Your task to perform on an android device: Show me popular games on the Play Store Image 0: 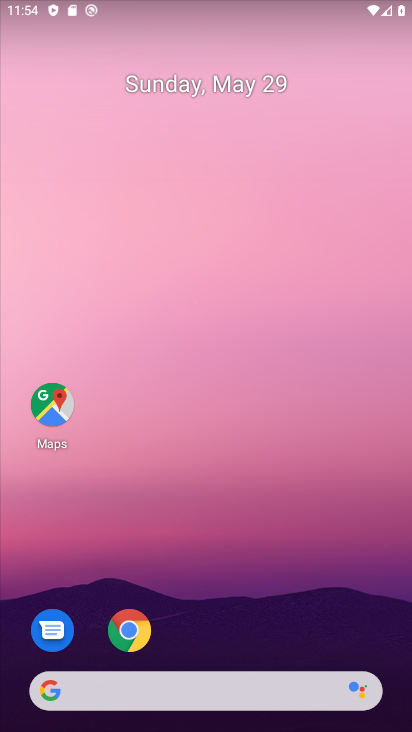
Step 0: drag from (112, 506) to (113, 36)
Your task to perform on an android device: Show me popular games on the Play Store Image 1: 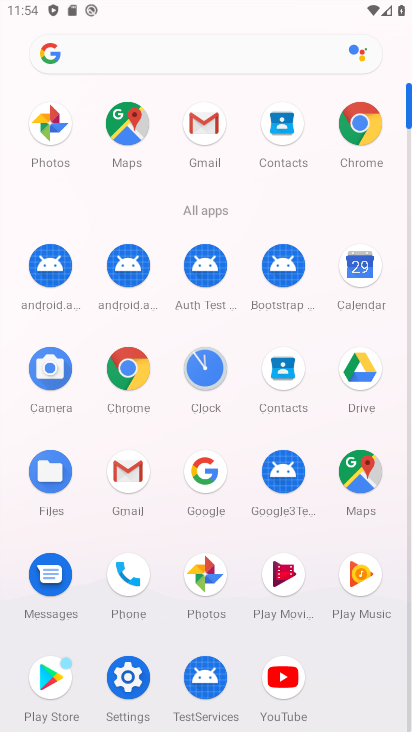
Step 1: click (54, 688)
Your task to perform on an android device: Show me popular games on the Play Store Image 2: 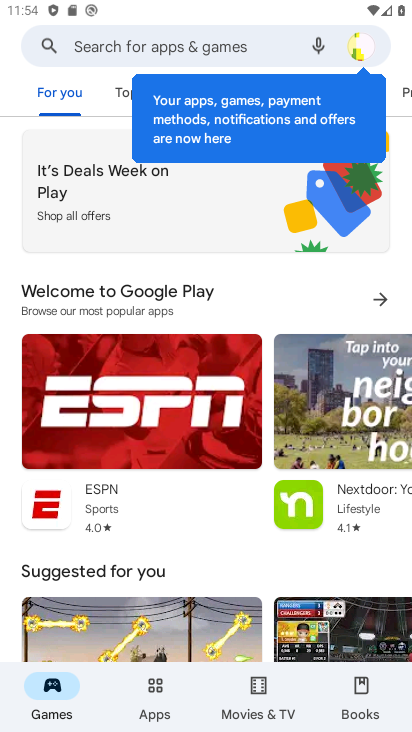
Step 2: click (115, 105)
Your task to perform on an android device: Show me popular games on the Play Store Image 3: 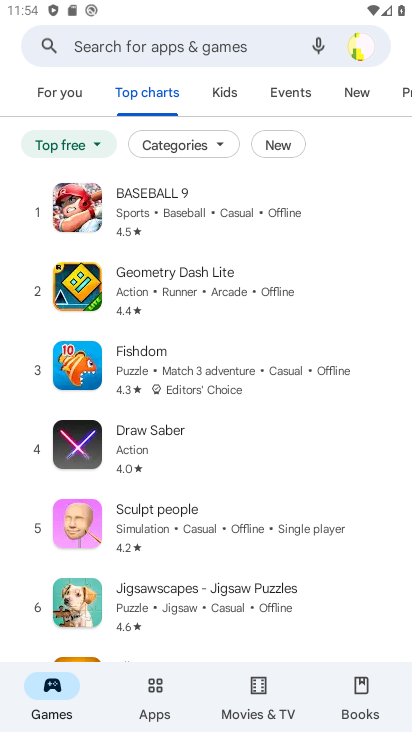
Step 3: task complete